Your task to perform on an android device: change the clock display to digital Image 0: 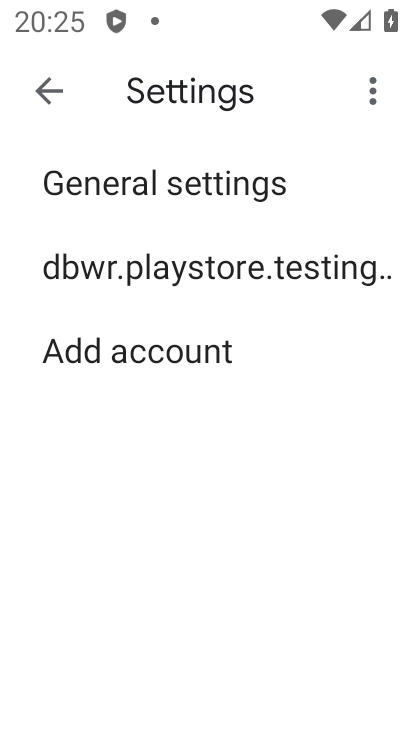
Step 0: press home button
Your task to perform on an android device: change the clock display to digital Image 1: 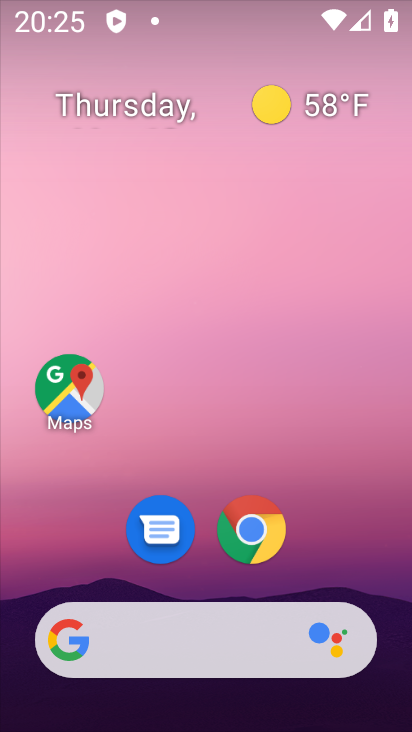
Step 1: drag from (202, 578) to (327, 91)
Your task to perform on an android device: change the clock display to digital Image 2: 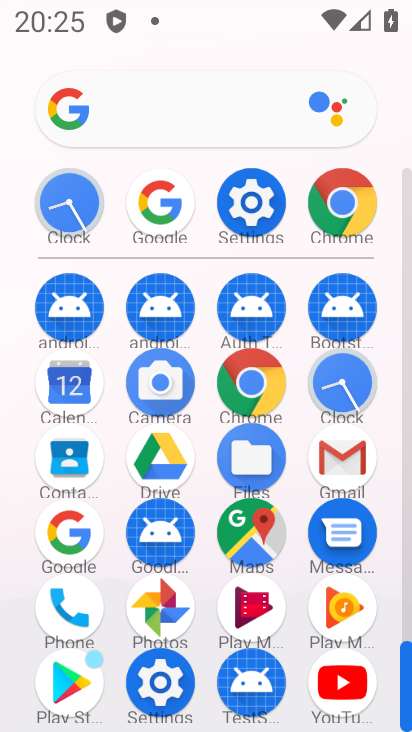
Step 2: click (336, 394)
Your task to perform on an android device: change the clock display to digital Image 3: 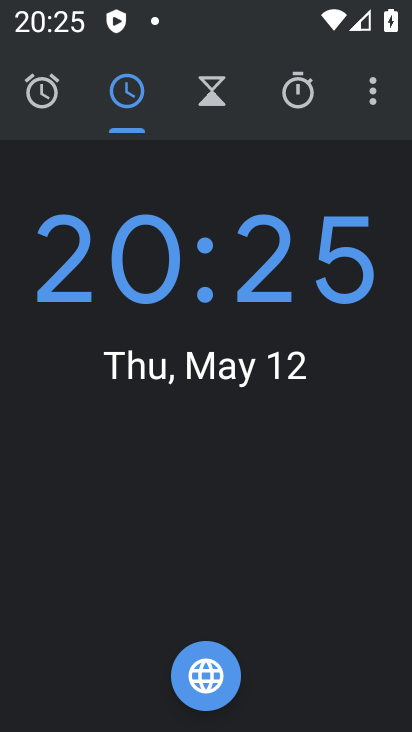
Step 3: click (361, 97)
Your task to perform on an android device: change the clock display to digital Image 4: 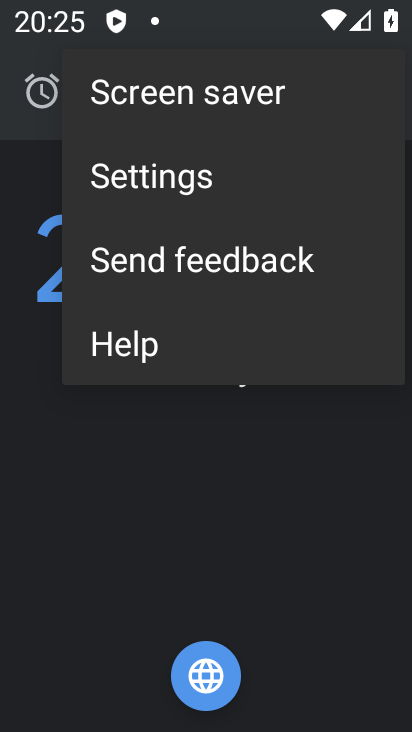
Step 4: click (177, 172)
Your task to perform on an android device: change the clock display to digital Image 5: 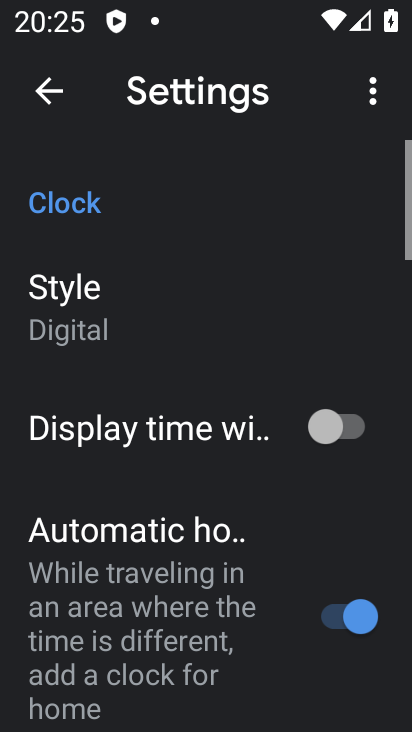
Step 5: click (84, 297)
Your task to perform on an android device: change the clock display to digital Image 6: 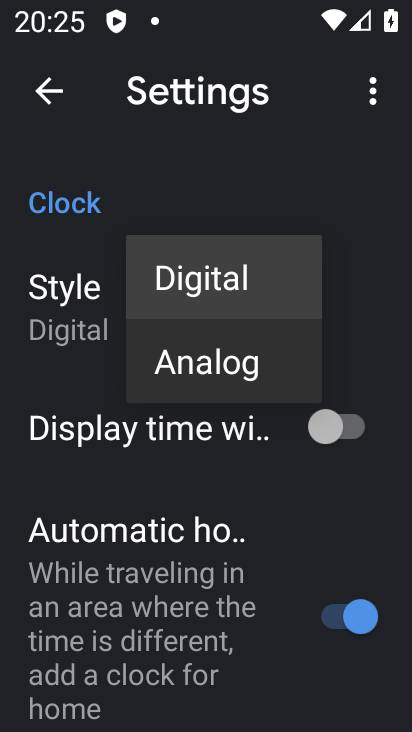
Step 6: click (209, 379)
Your task to perform on an android device: change the clock display to digital Image 7: 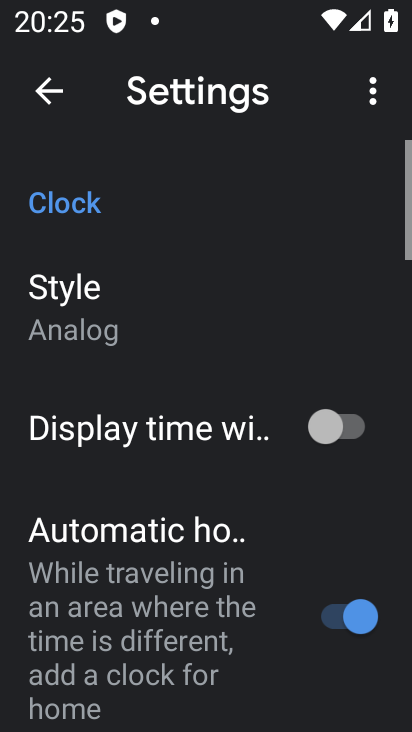
Step 7: task complete